Your task to perform on an android device: turn on the 12-hour format for clock Image 0: 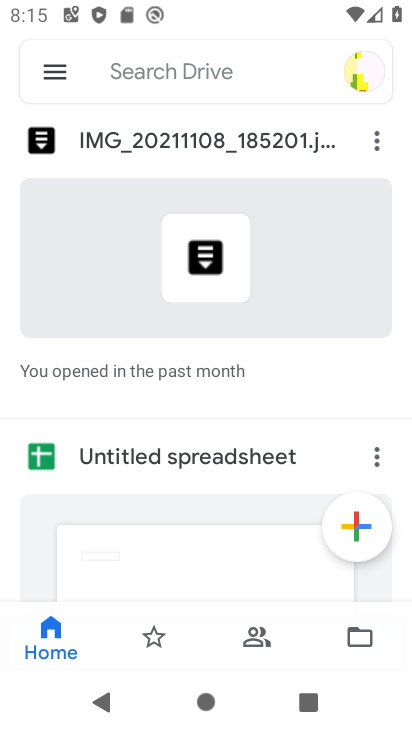
Step 0: press home button
Your task to perform on an android device: turn on the 12-hour format for clock Image 1: 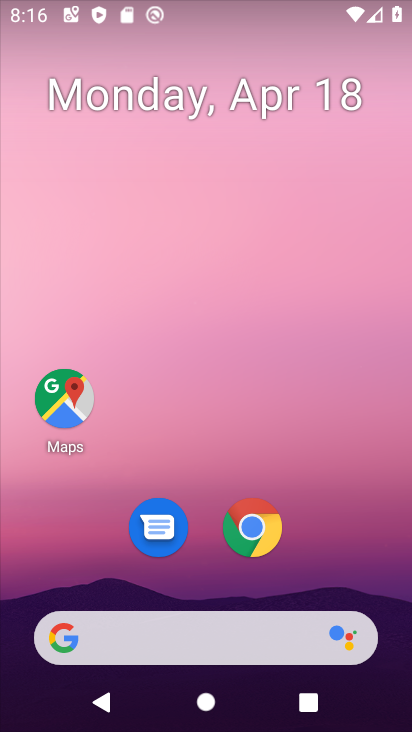
Step 1: drag from (210, 522) to (216, 18)
Your task to perform on an android device: turn on the 12-hour format for clock Image 2: 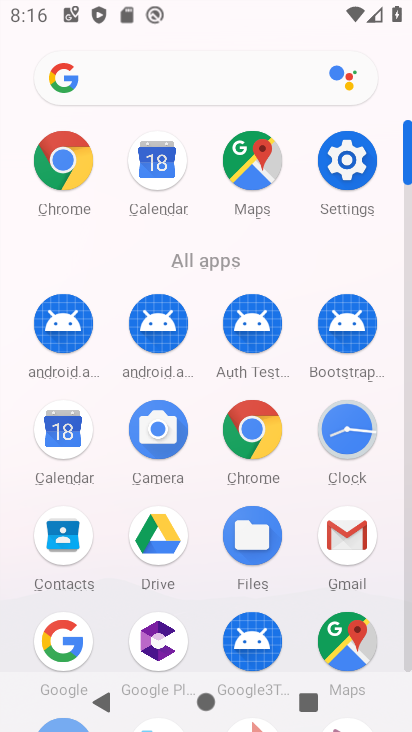
Step 2: click (338, 430)
Your task to perform on an android device: turn on the 12-hour format for clock Image 3: 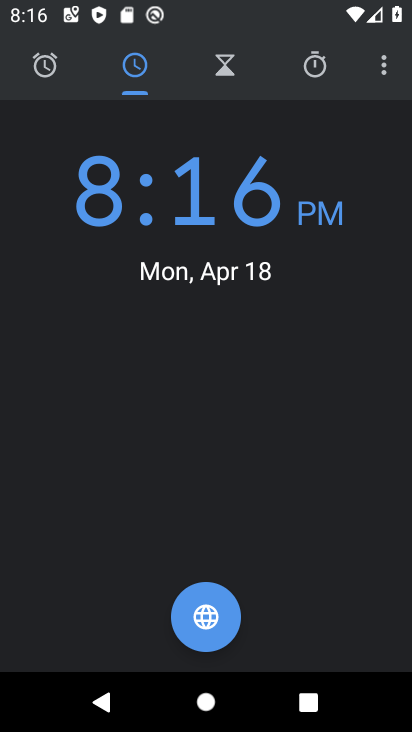
Step 3: click (384, 71)
Your task to perform on an android device: turn on the 12-hour format for clock Image 4: 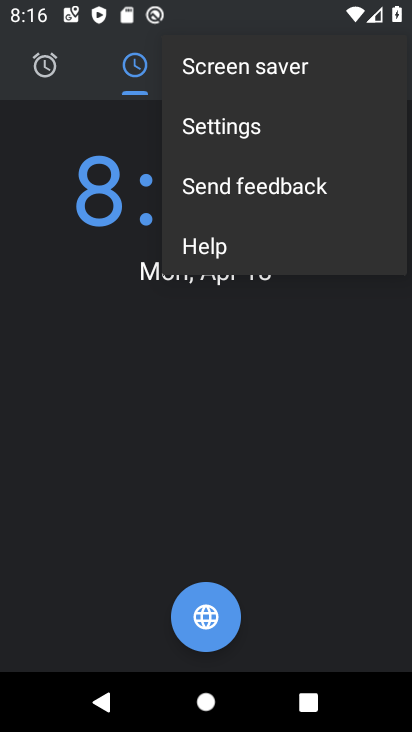
Step 4: click (250, 132)
Your task to perform on an android device: turn on the 12-hour format for clock Image 5: 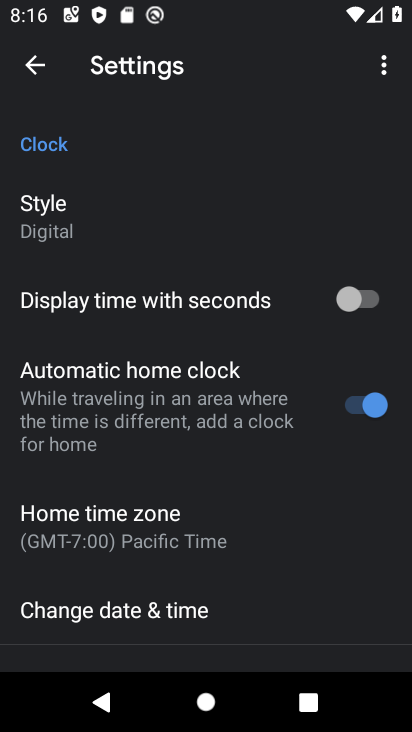
Step 5: drag from (165, 509) to (202, 242)
Your task to perform on an android device: turn on the 12-hour format for clock Image 6: 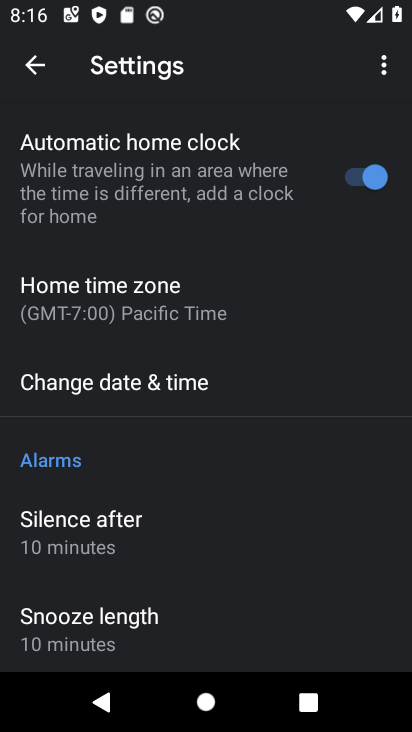
Step 6: drag from (172, 526) to (198, 256)
Your task to perform on an android device: turn on the 12-hour format for clock Image 7: 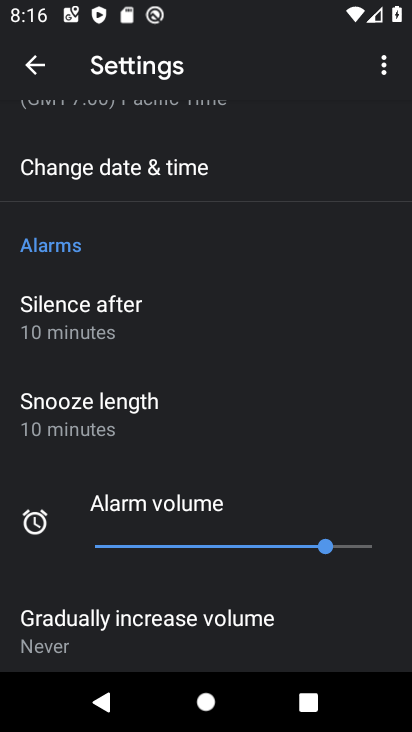
Step 7: drag from (196, 466) to (214, 176)
Your task to perform on an android device: turn on the 12-hour format for clock Image 8: 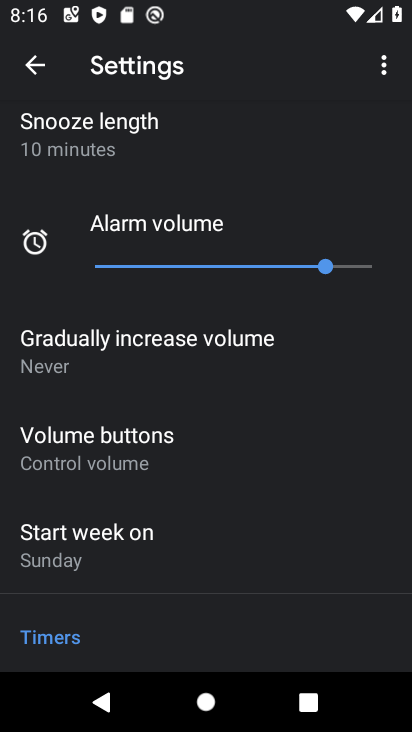
Step 8: drag from (220, 589) to (263, 219)
Your task to perform on an android device: turn on the 12-hour format for clock Image 9: 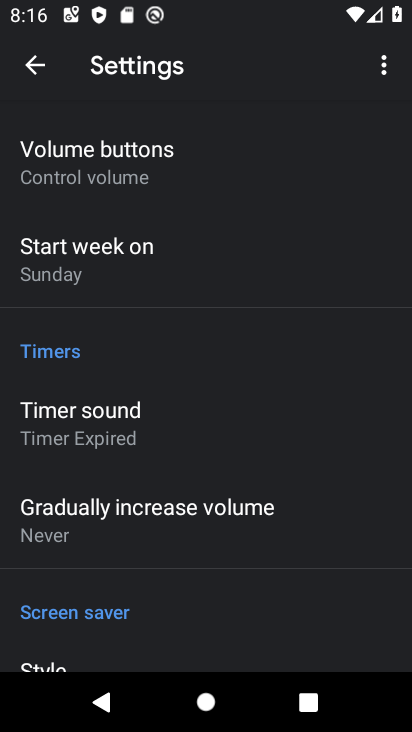
Step 9: drag from (232, 575) to (266, 164)
Your task to perform on an android device: turn on the 12-hour format for clock Image 10: 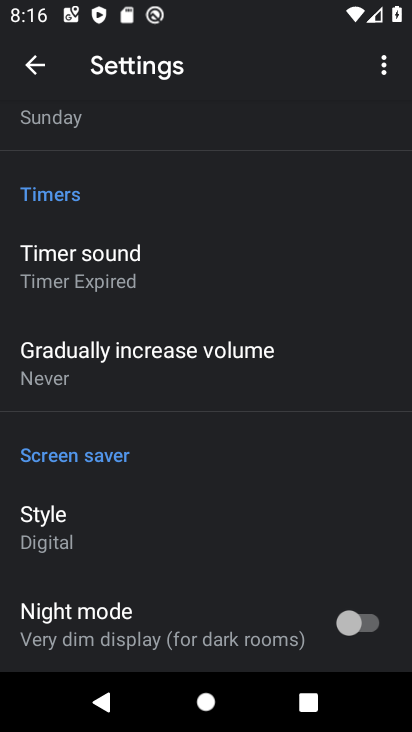
Step 10: drag from (258, 217) to (239, 728)
Your task to perform on an android device: turn on the 12-hour format for clock Image 11: 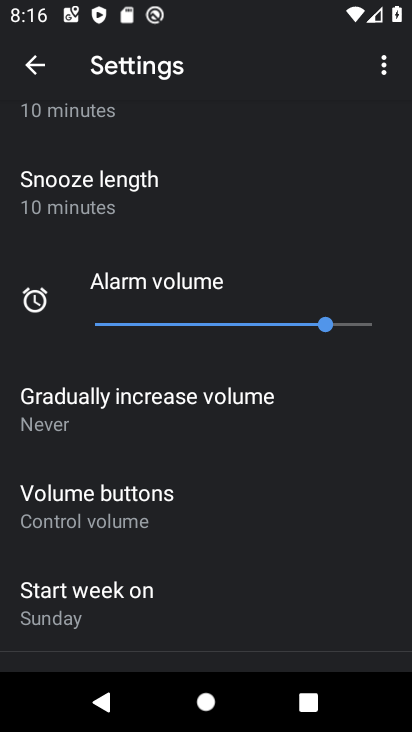
Step 11: drag from (257, 219) to (234, 577)
Your task to perform on an android device: turn on the 12-hour format for clock Image 12: 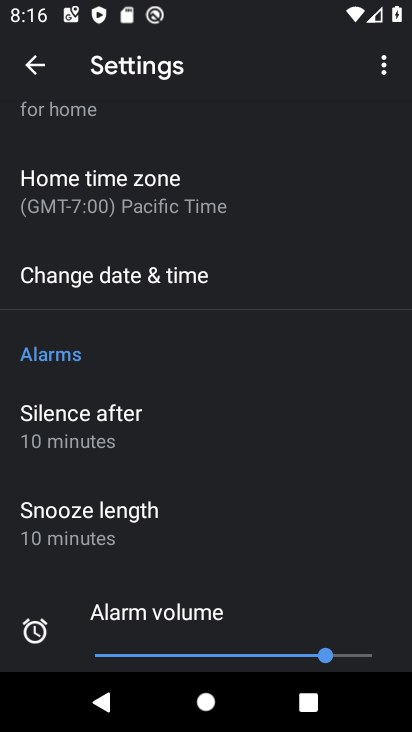
Step 12: click (175, 277)
Your task to perform on an android device: turn on the 12-hour format for clock Image 13: 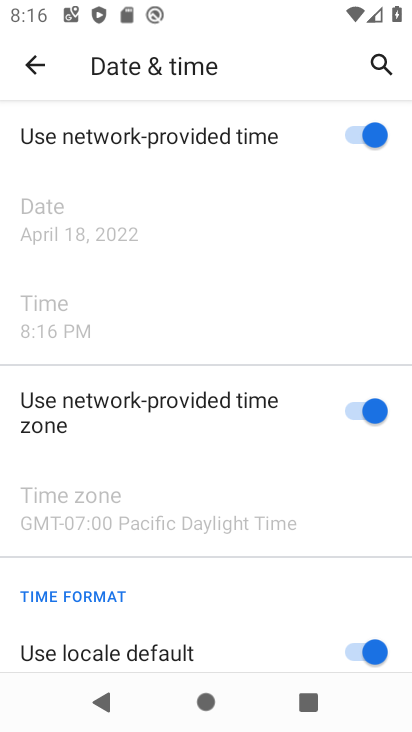
Step 13: drag from (228, 527) to (283, 136)
Your task to perform on an android device: turn on the 12-hour format for clock Image 14: 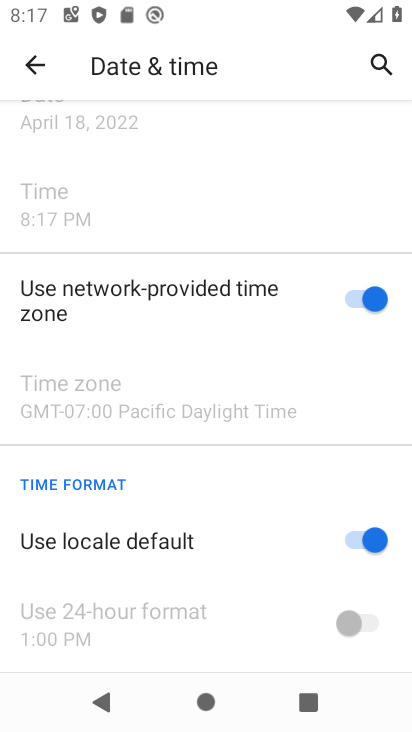
Step 14: click (364, 544)
Your task to perform on an android device: turn on the 12-hour format for clock Image 15: 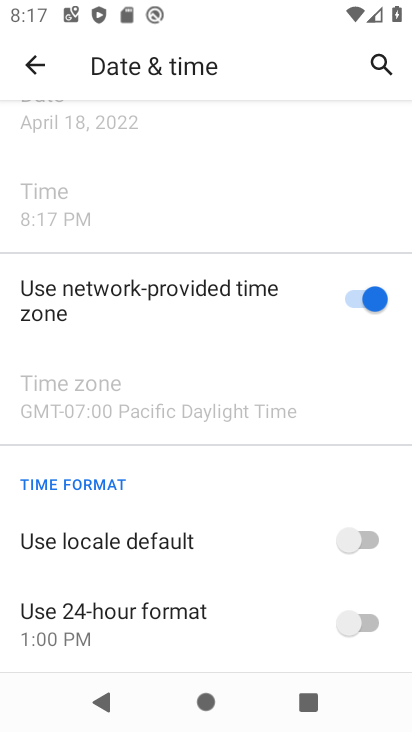
Step 15: task complete